Your task to perform on an android device: Open Amazon Image 0: 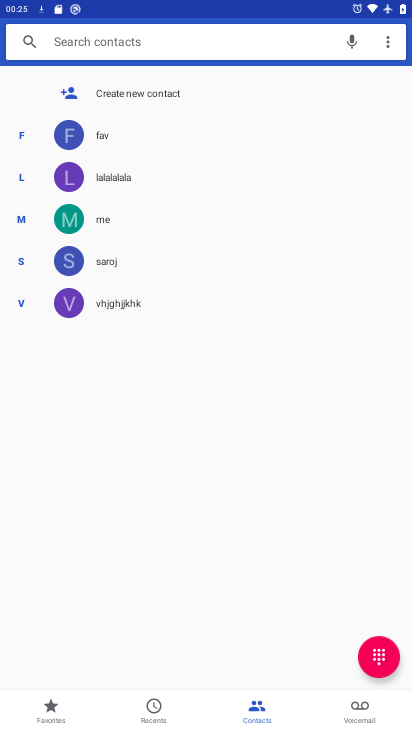
Step 0: press home button
Your task to perform on an android device: Open Amazon Image 1: 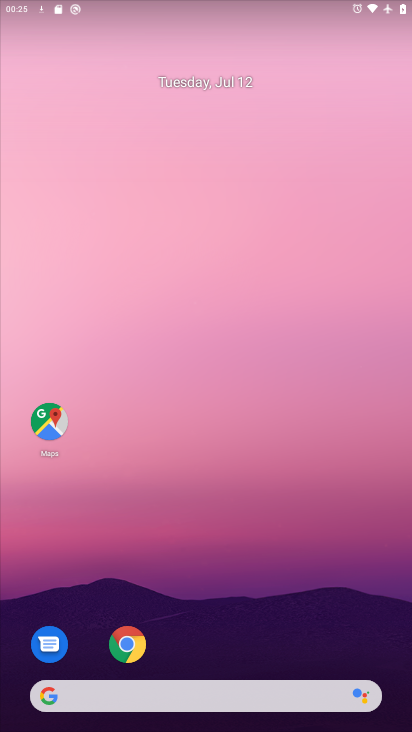
Step 1: drag from (259, 600) to (204, 93)
Your task to perform on an android device: Open Amazon Image 2: 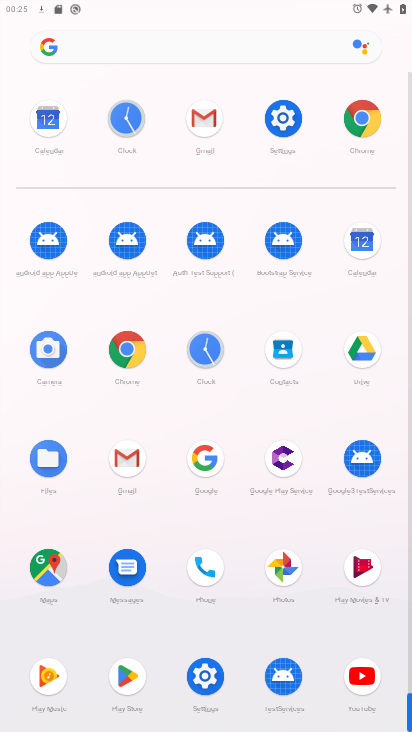
Step 2: click (349, 108)
Your task to perform on an android device: Open Amazon Image 3: 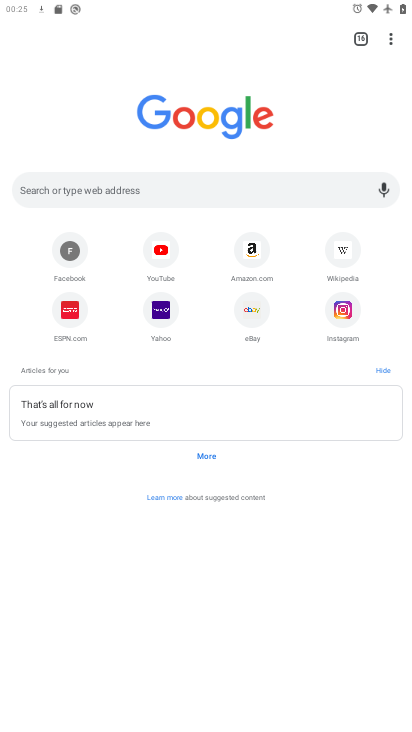
Step 3: click (252, 253)
Your task to perform on an android device: Open Amazon Image 4: 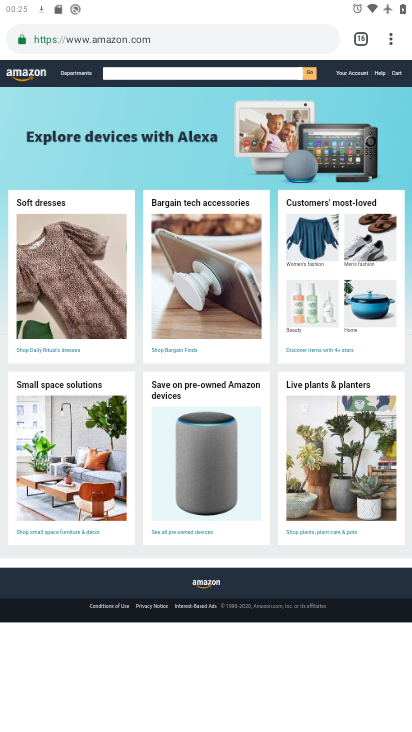
Step 4: task complete